Your task to perform on an android device: Add "asus rog" to the cart on amazon.com Image 0: 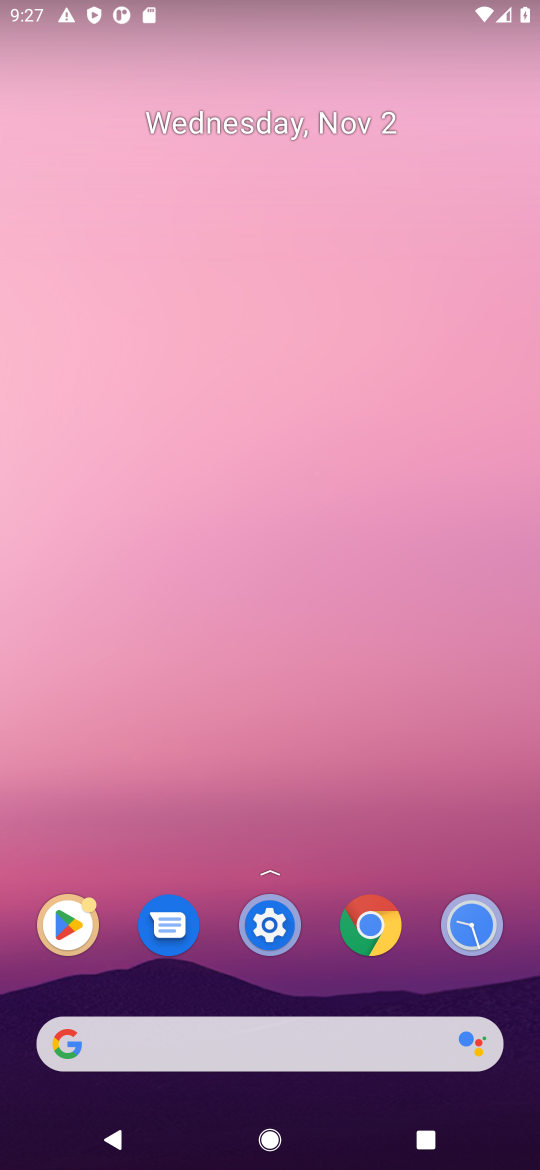
Step 0: drag from (331, 663) to (338, 150)
Your task to perform on an android device: Add "asus rog" to the cart on amazon.com Image 1: 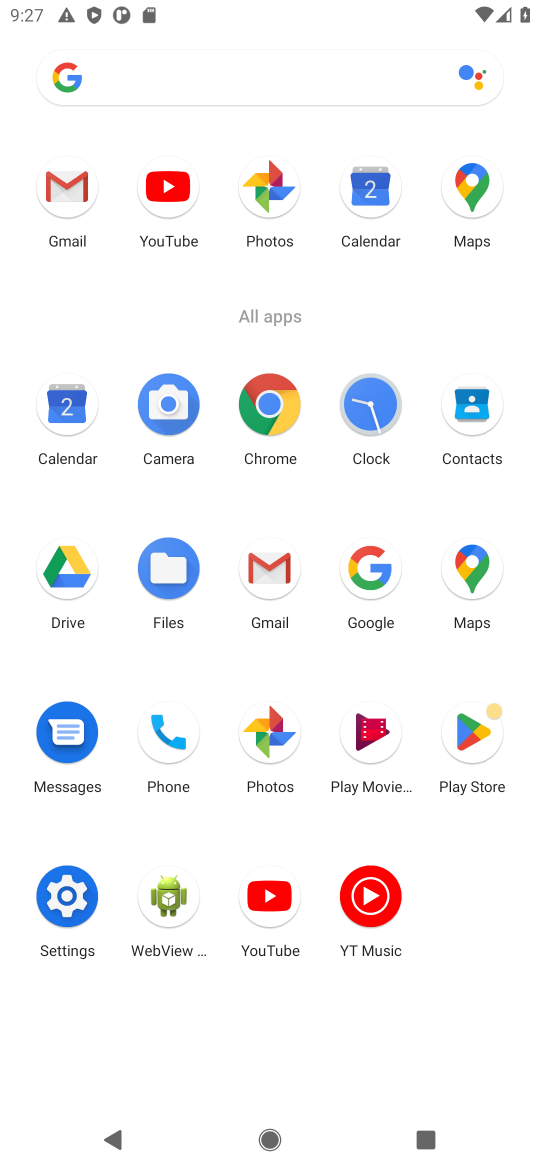
Step 1: click (263, 408)
Your task to perform on an android device: Add "asus rog" to the cart on amazon.com Image 2: 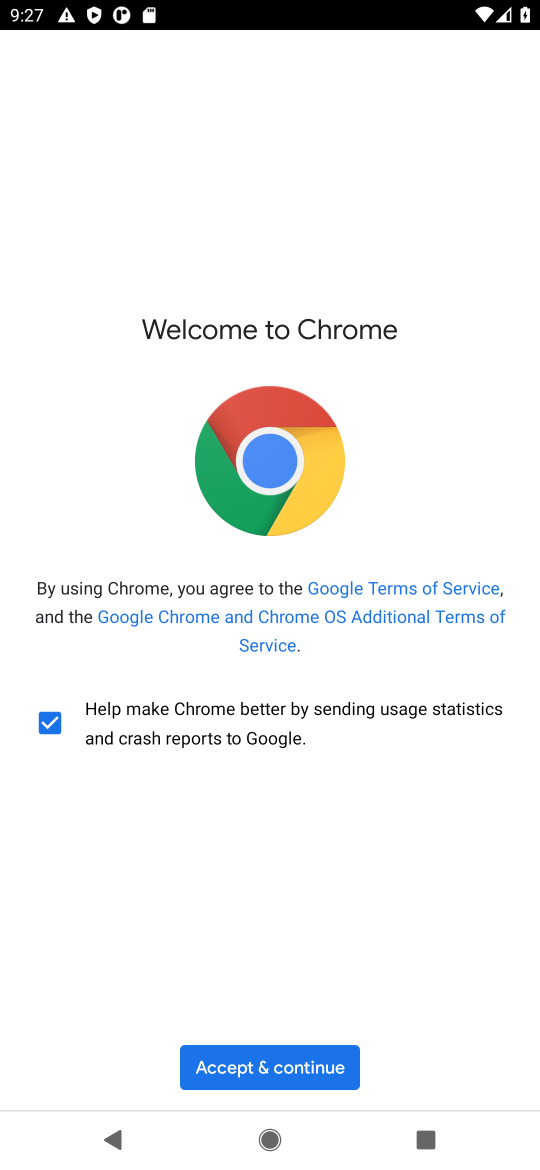
Step 2: click (322, 1075)
Your task to perform on an android device: Add "asus rog" to the cart on amazon.com Image 3: 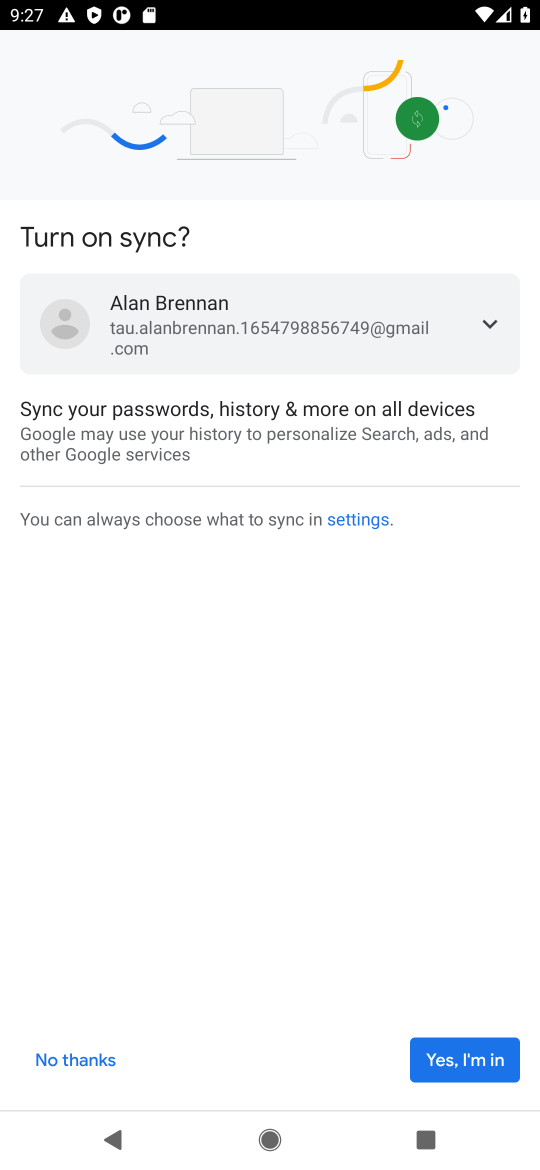
Step 3: click (67, 1061)
Your task to perform on an android device: Add "asus rog" to the cart on amazon.com Image 4: 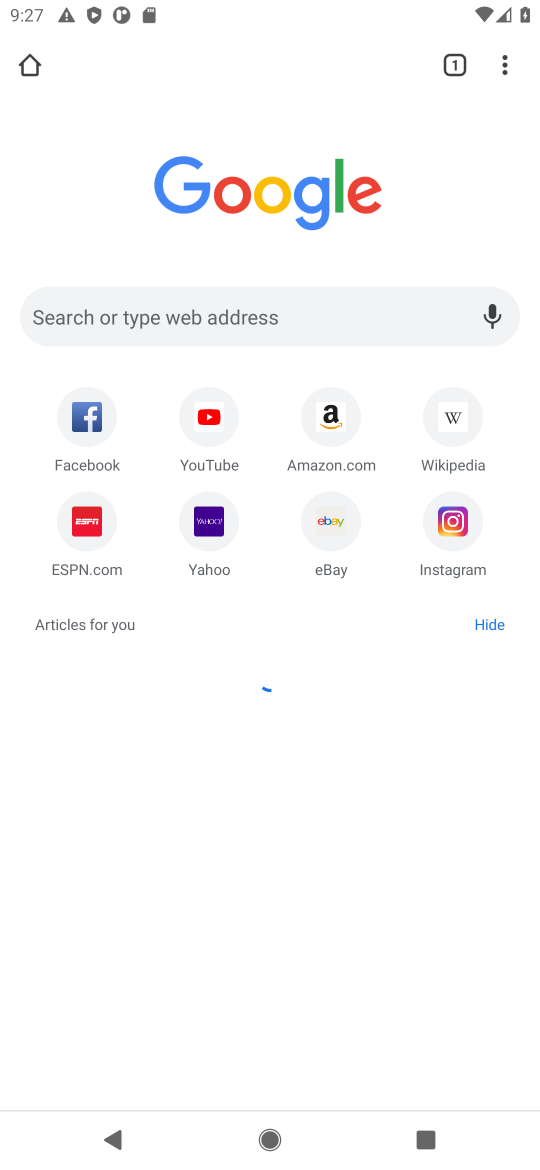
Step 4: click (324, 425)
Your task to perform on an android device: Add "asus rog" to the cart on amazon.com Image 5: 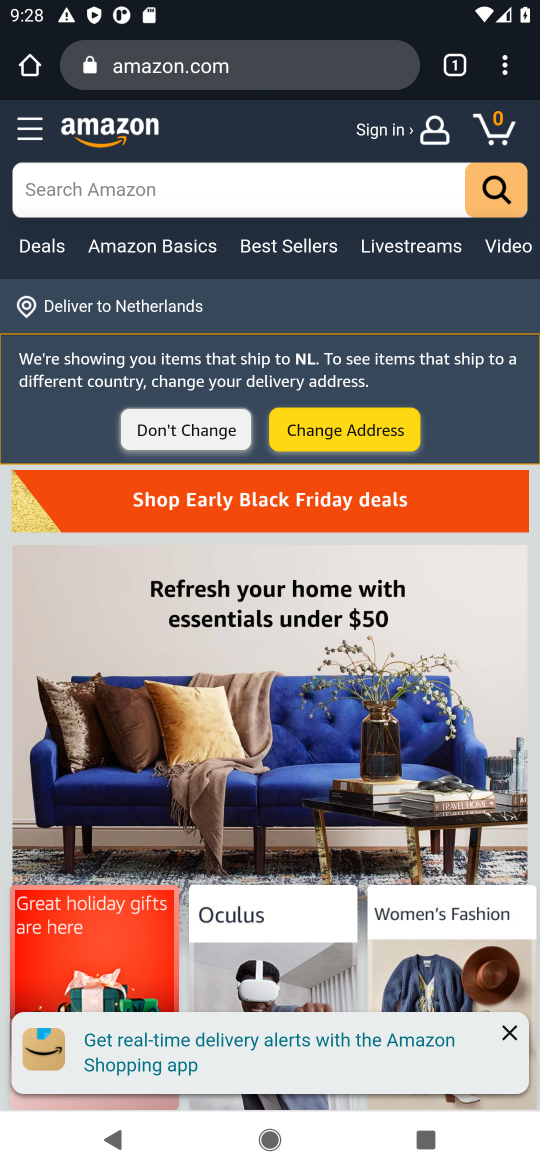
Step 5: click (300, 197)
Your task to perform on an android device: Add "asus rog" to the cart on amazon.com Image 6: 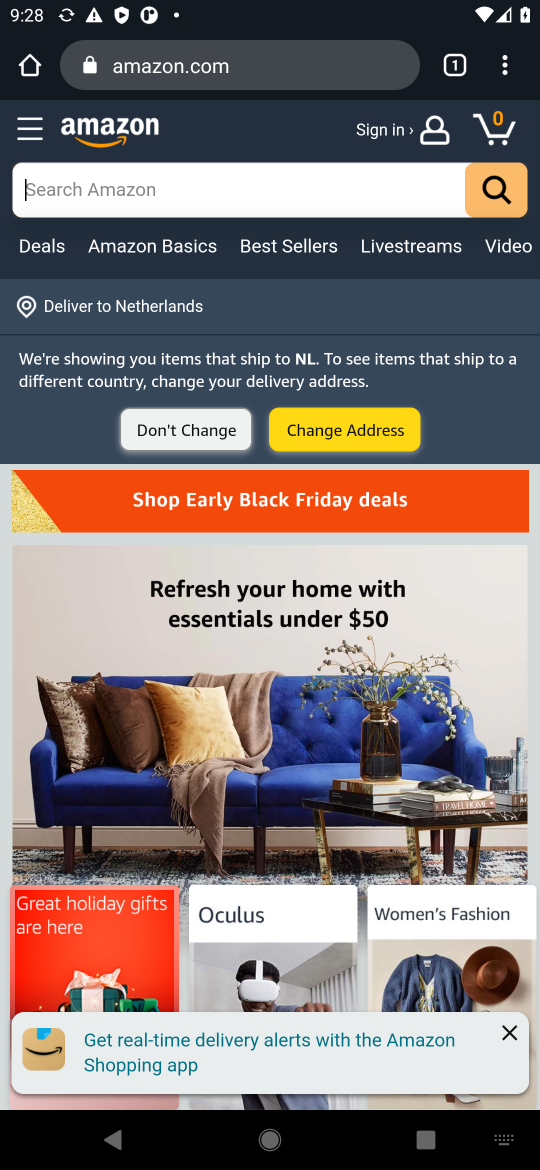
Step 6: type "asus rog"
Your task to perform on an android device: Add "asus rog" to the cart on amazon.com Image 7: 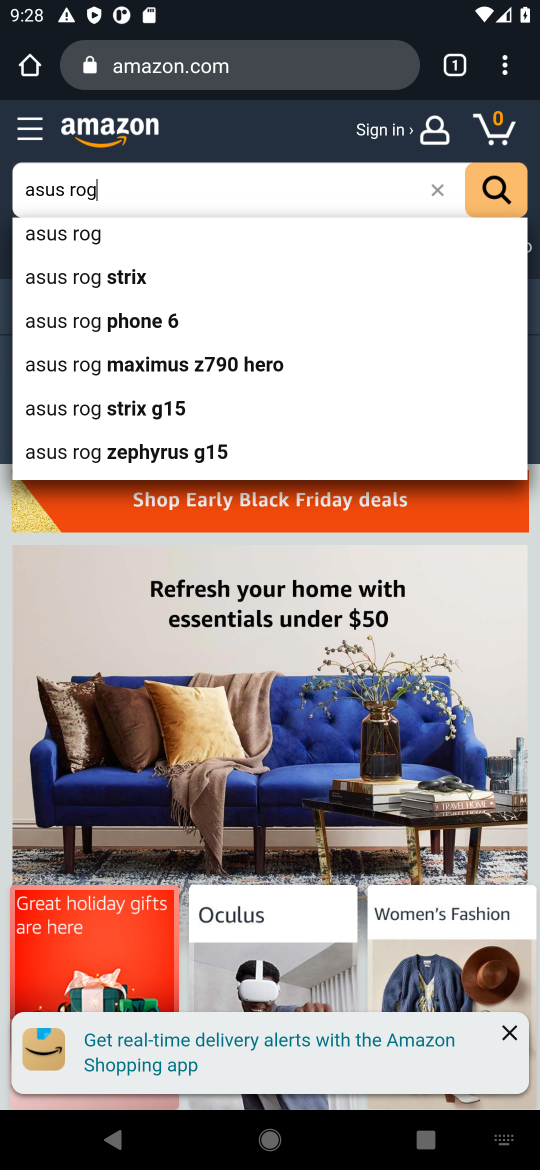
Step 7: click (90, 233)
Your task to perform on an android device: Add "asus rog" to the cart on amazon.com Image 8: 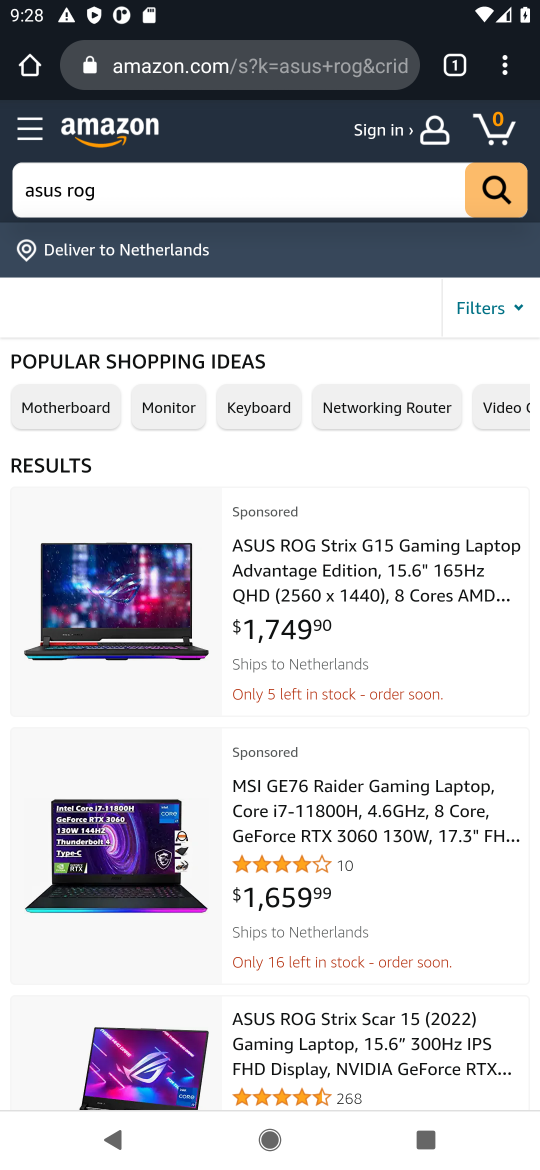
Step 8: click (347, 578)
Your task to perform on an android device: Add "asus rog" to the cart on amazon.com Image 9: 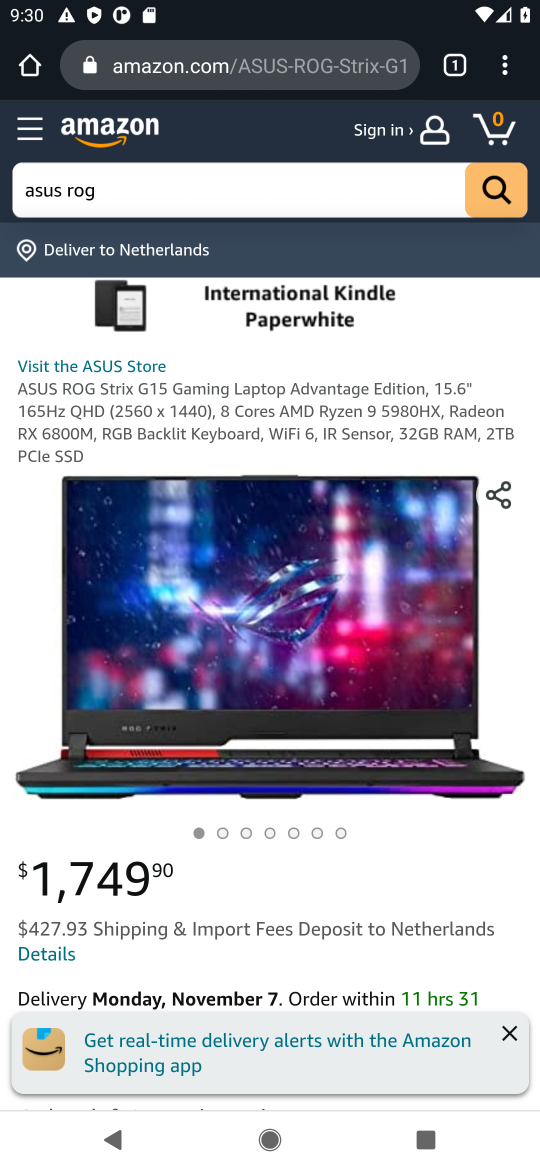
Step 9: drag from (262, 954) to (248, 636)
Your task to perform on an android device: Add "asus rog" to the cart on amazon.com Image 10: 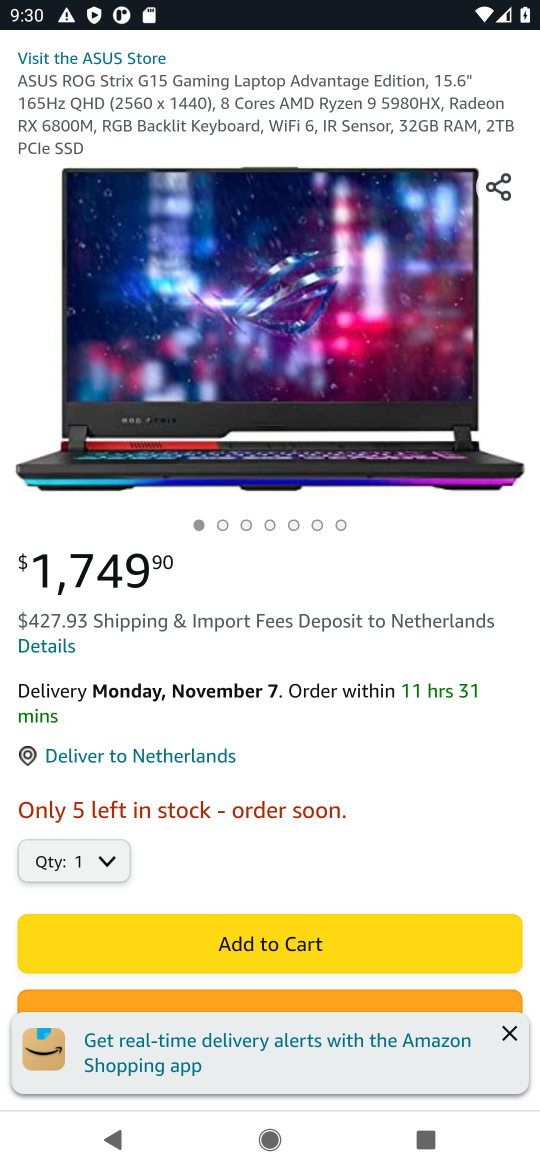
Step 10: drag from (279, 876) to (292, 451)
Your task to perform on an android device: Add "asus rog" to the cart on amazon.com Image 11: 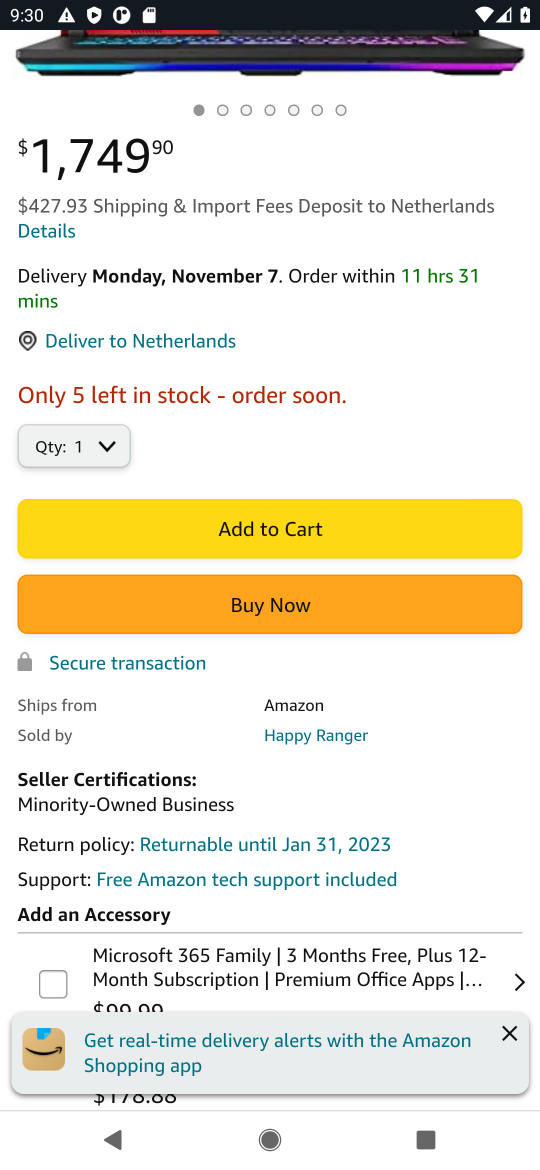
Step 11: click (281, 536)
Your task to perform on an android device: Add "asus rog" to the cart on amazon.com Image 12: 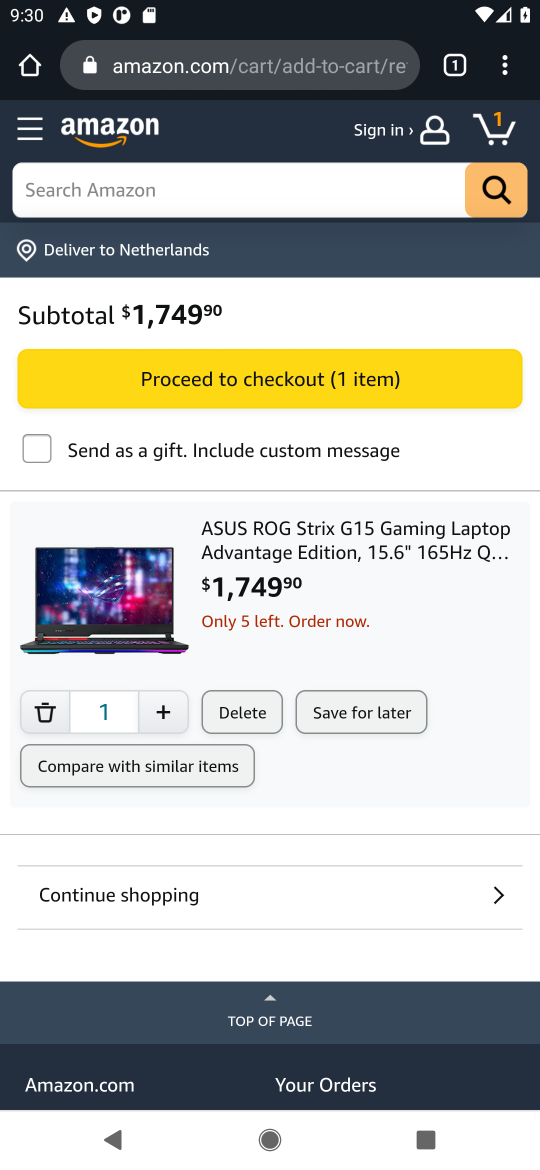
Step 12: task complete